Your task to perform on an android device: visit the assistant section in the google photos Image 0: 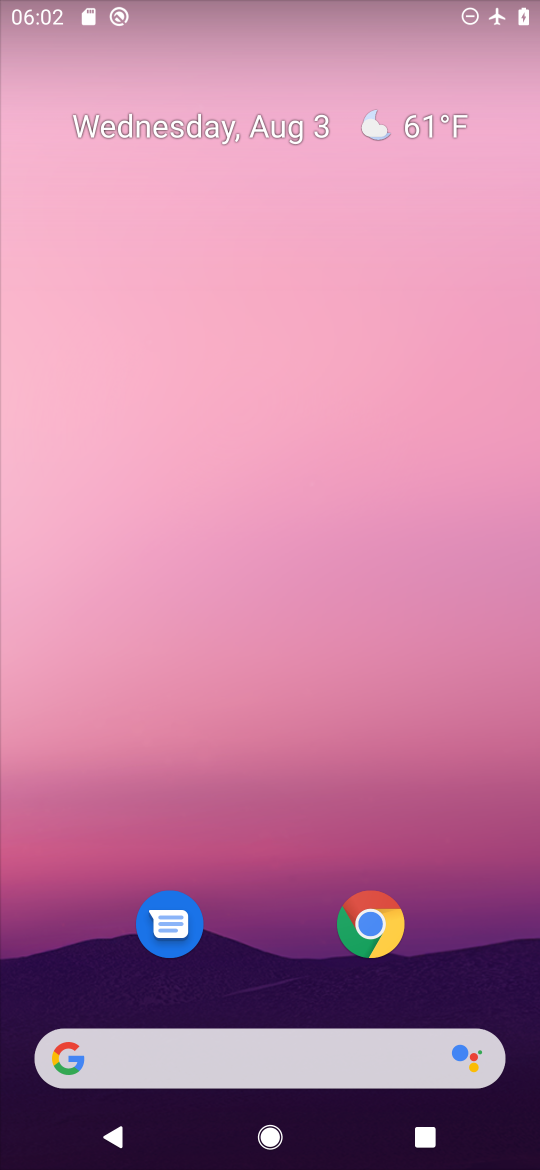
Step 0: drag from (260, 950) to (370, 162)
Your task to perform on an android device: visit the assistant section in the google photos Image 1: 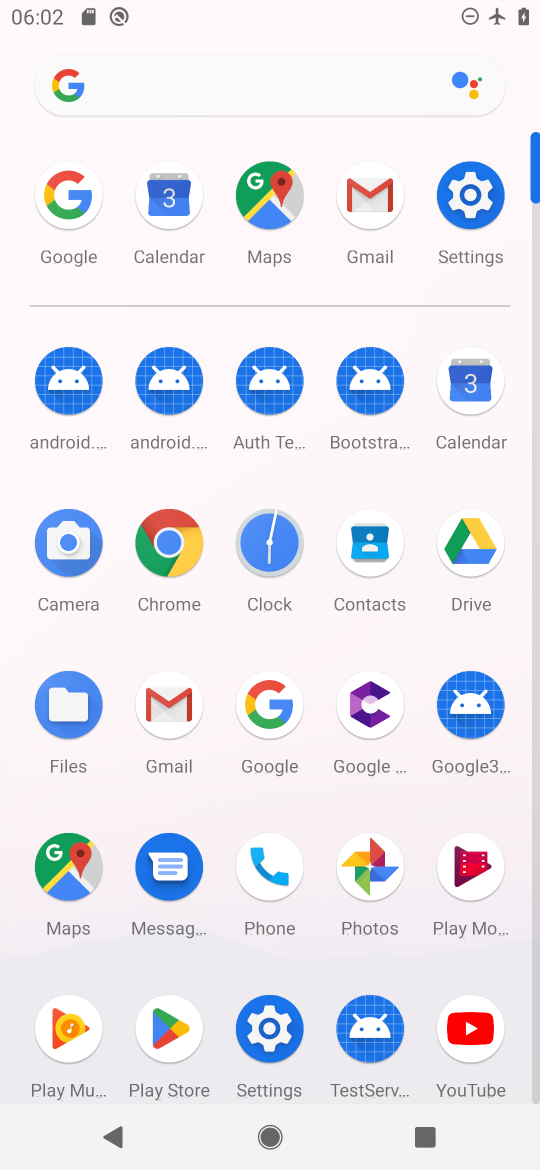
Step 1: click (370, 873)
Your task to perform on an android device: visit the assistant section in the google photos Image 2: 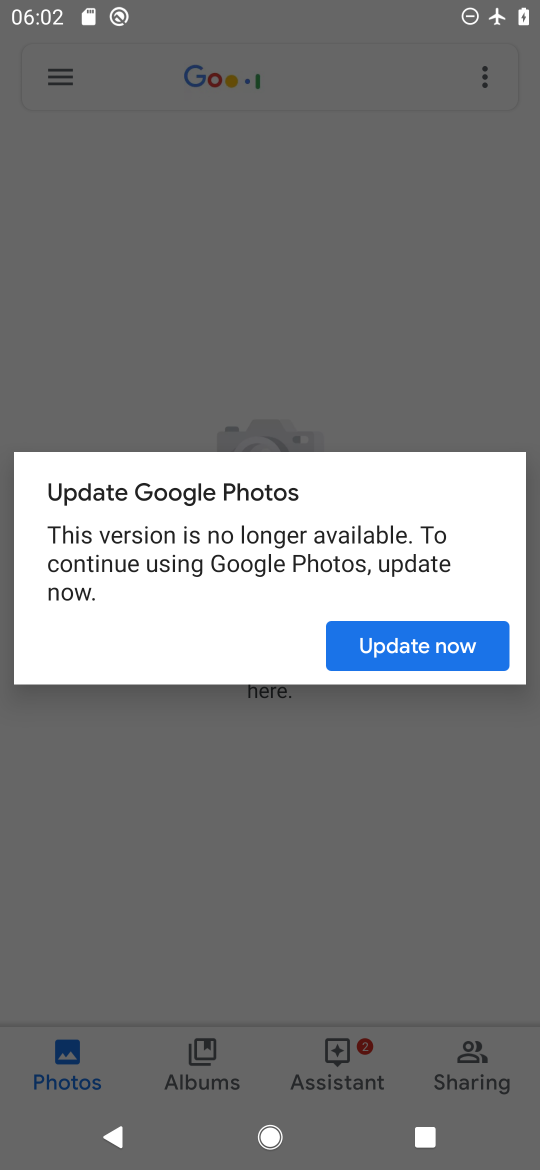
Step 2: click (409, 648)
Your task to perform on an android device: visit the assistant section in the google photos Image 3: 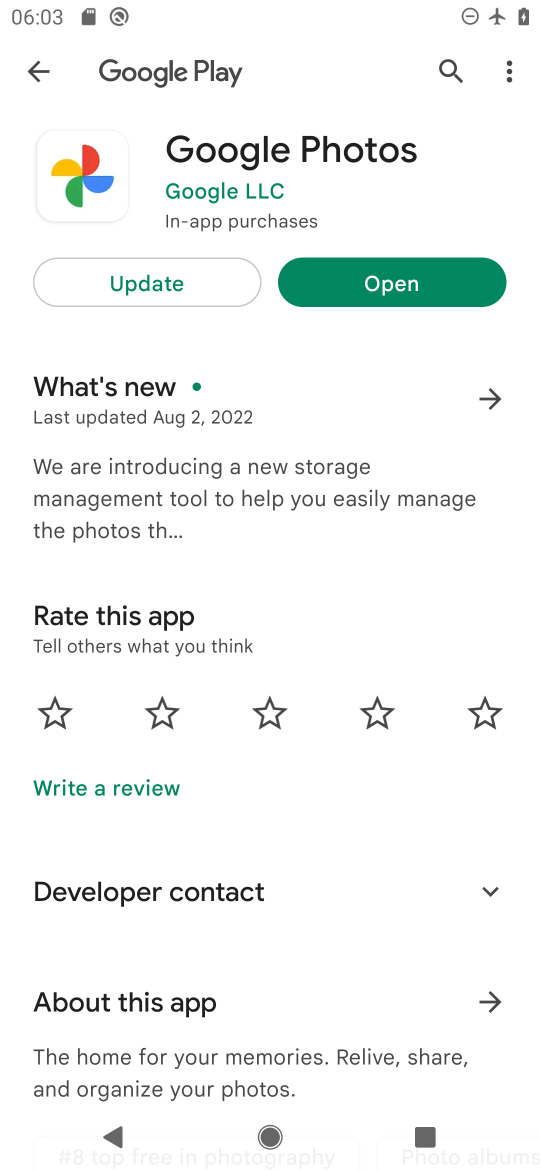
Step 3: click (328, 292)
Your task to perform on an android device: visit the assistant section in the google photos Image 4: 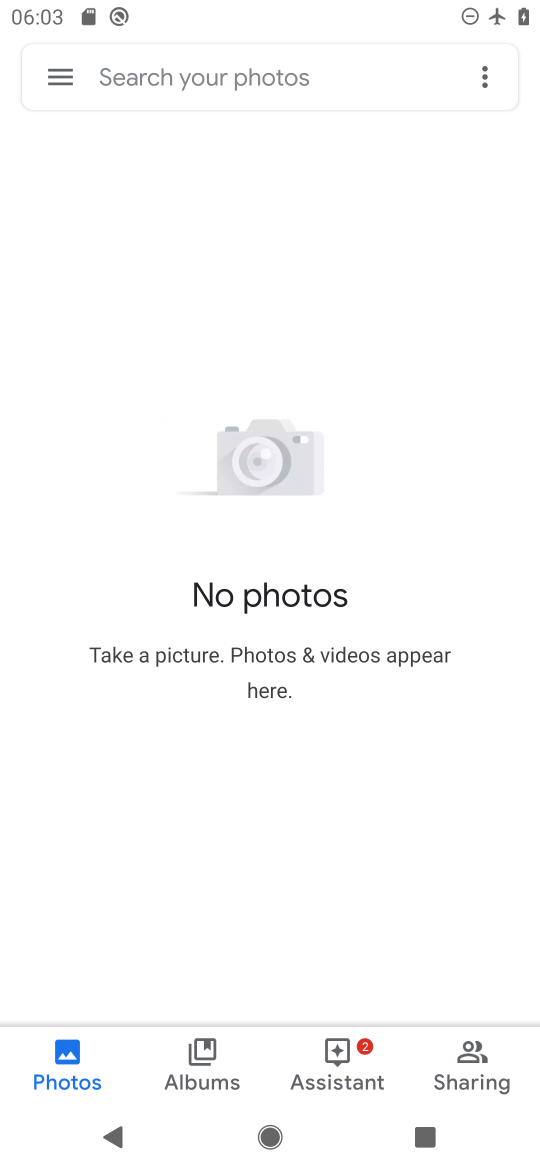
Step 4: click (322, 1042)
Your task to perform on an android device: visit the assistant section in the google photos Image 5: 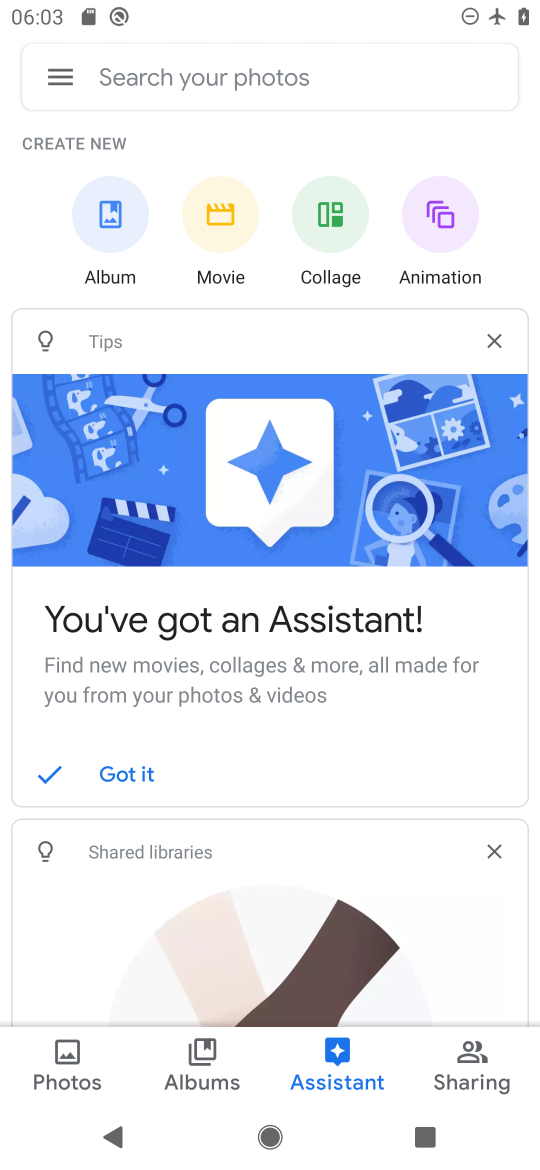
Step 5: task complete